Your task to perform on an android device: toggle priority inbox in the gmail app Image 0: 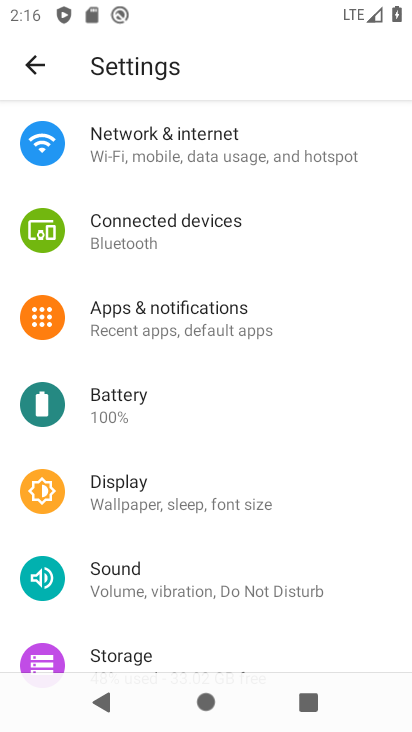
Step 0: press home button
Your task to perform on an android device: toggle priority inbox in the gmail app Image 1: 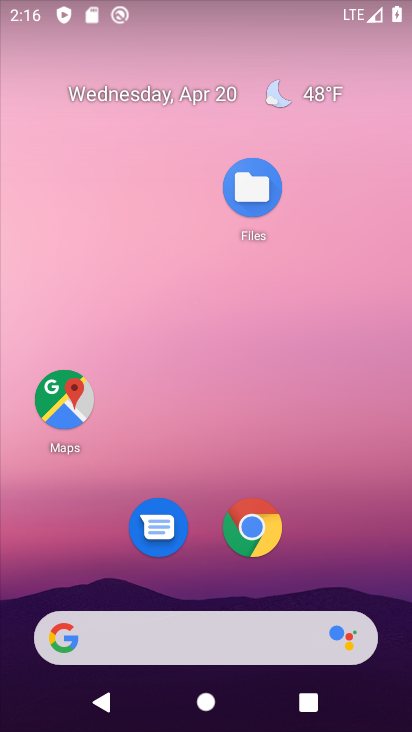
Step 1: drag from (216, 572) to (177, 15)
Your task to perform on an android device: toggle priority inbox in the gmail app Image 2: 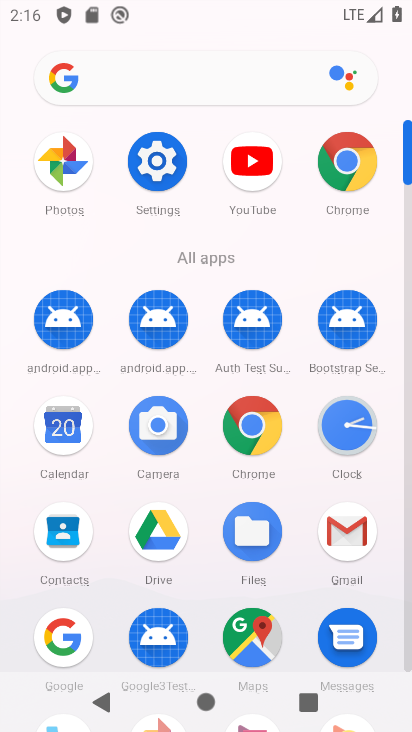
Step 2: click (342, 534)
Your task to perform on an android device: toggle priority inbox in the gmail app Image 3: 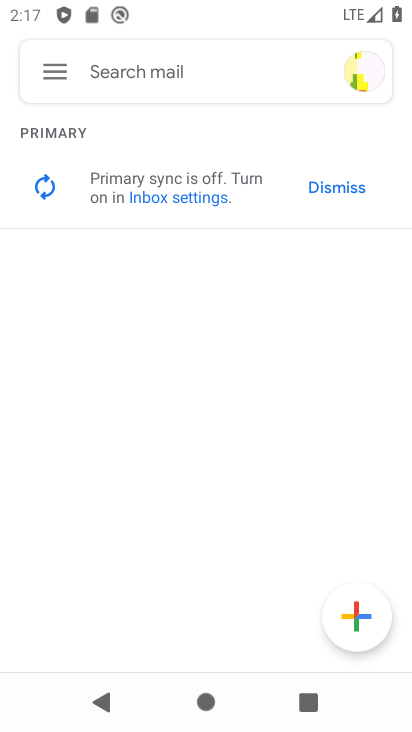
Step 3: click (64, 60)
Your task to perform on an android device: toggle priority inbox in the gmail app Image 4: 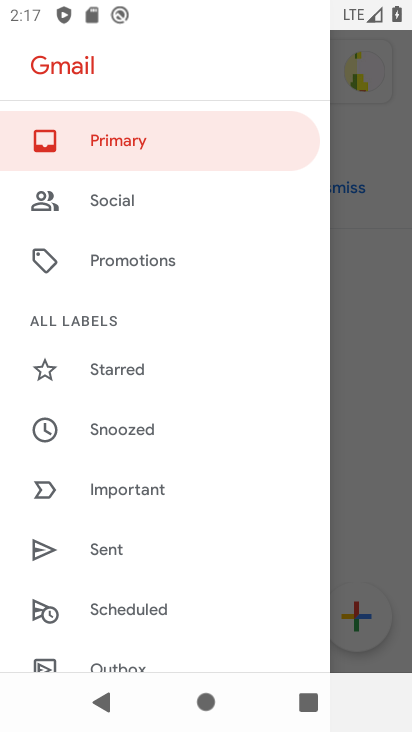
Step 4: drag from (127, 582) to (148, 108)
Your task to perform on an android device: toggle priority inbox in the gmail app Image 5: 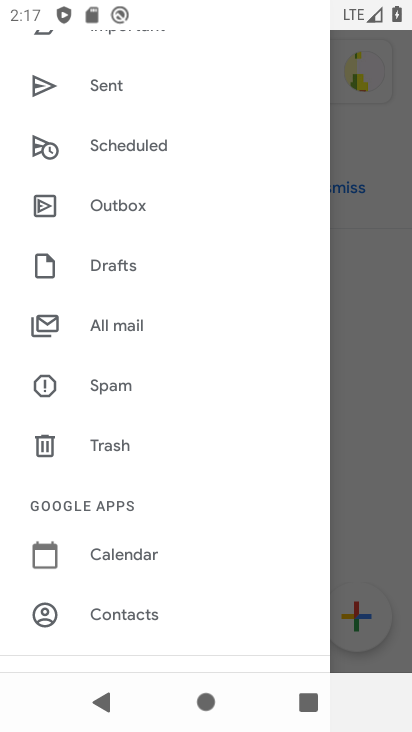
Step 5: drag from (94, 642) to (89, 187)
Your task to perform on an android device: toggle priority inbox in the gmail app Image 6: 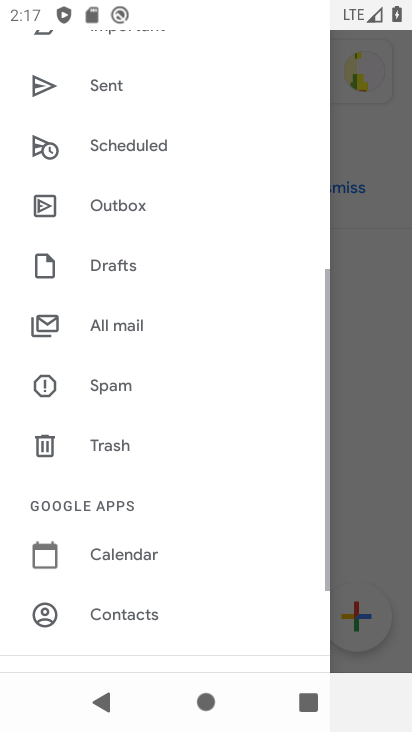
Step 6: drag from (121, 575) to (145, 181)
Your task to perform on an android device: toggle priority inbox in the gmail app Image 7: 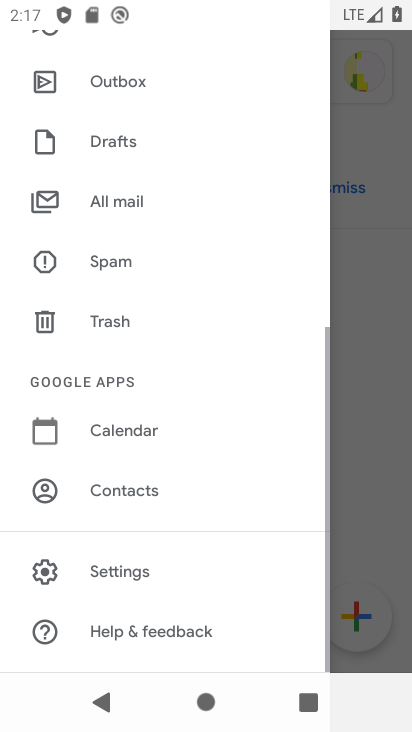
Step 7: click (108, 578)
Your task to perform on an android device: toggle priority inbox in the gmail app Image 8: 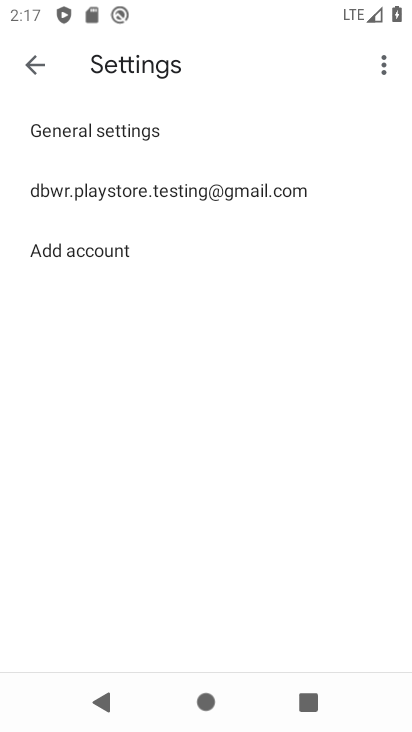
Step 8: click (228, 178)
Your task to perform on an android device: toggle priority inbox in the gmail app Image 9: 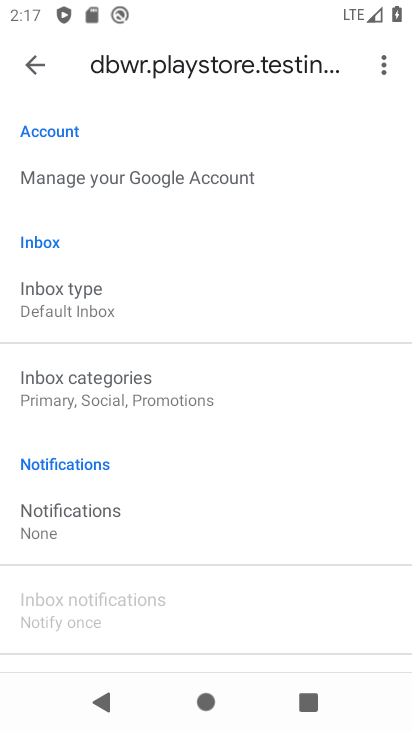
Step 9: click (108, 320)
Your task to perform on an android device: toggle priority inbox in the gmail app Image 10: 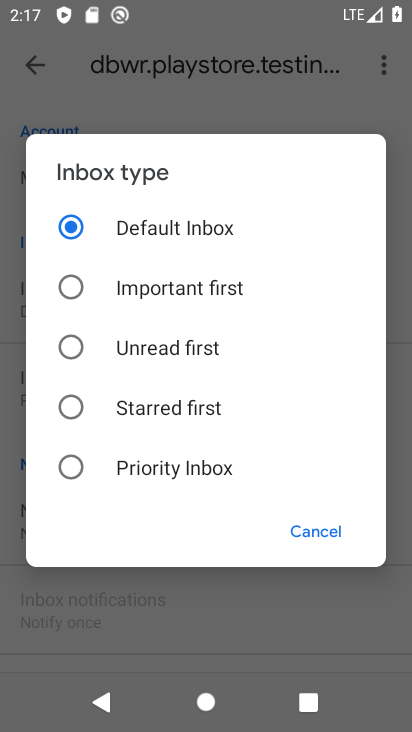
Step 10: click (165, 357)
Your task to perform on an android device: toggle priority inbox in the gmail app Image 11: 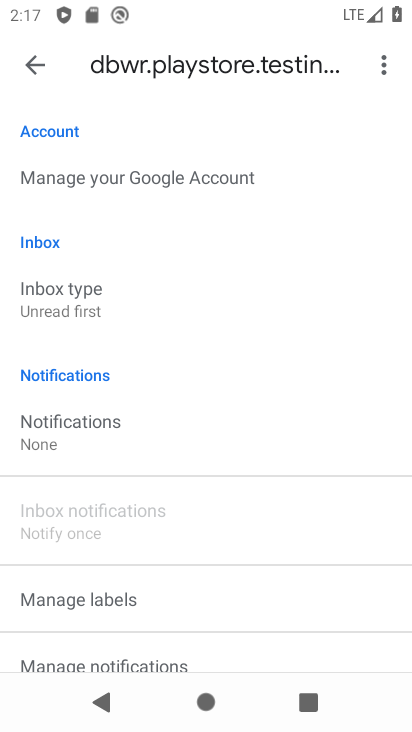
Step 11: task complete